Your task to perform on an android device: Search for macbook pro 13 inch on amazon, select the first entry, add it to the cart, then select checkout. Image 0: 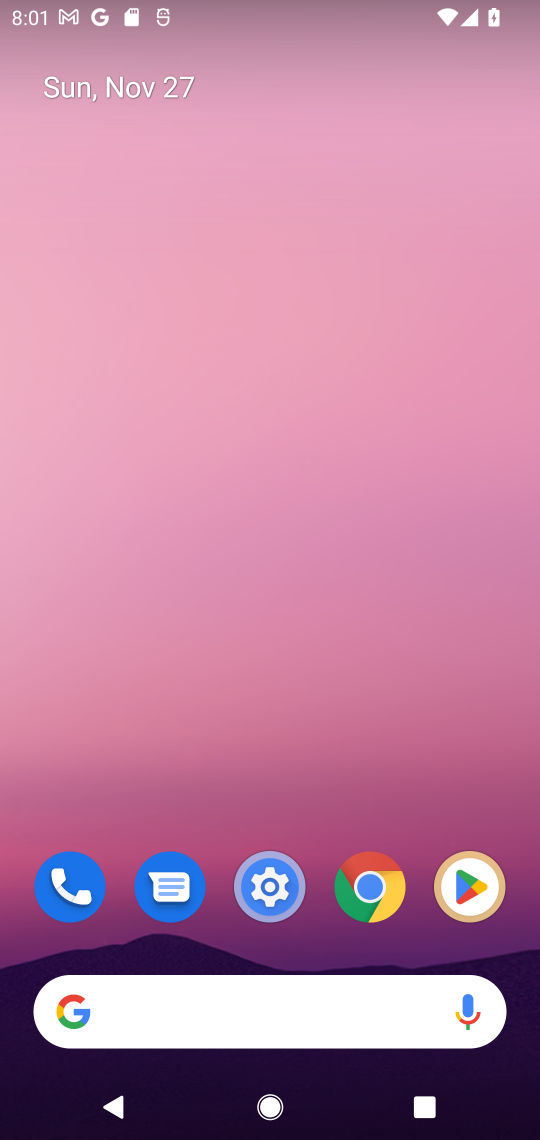
Step 0: click (196, 1008)
Your task to perform on an android device: Search for macbook pro 13 inch on amazon, select the first entry, add it to the cart, then select checkout. Image 1: 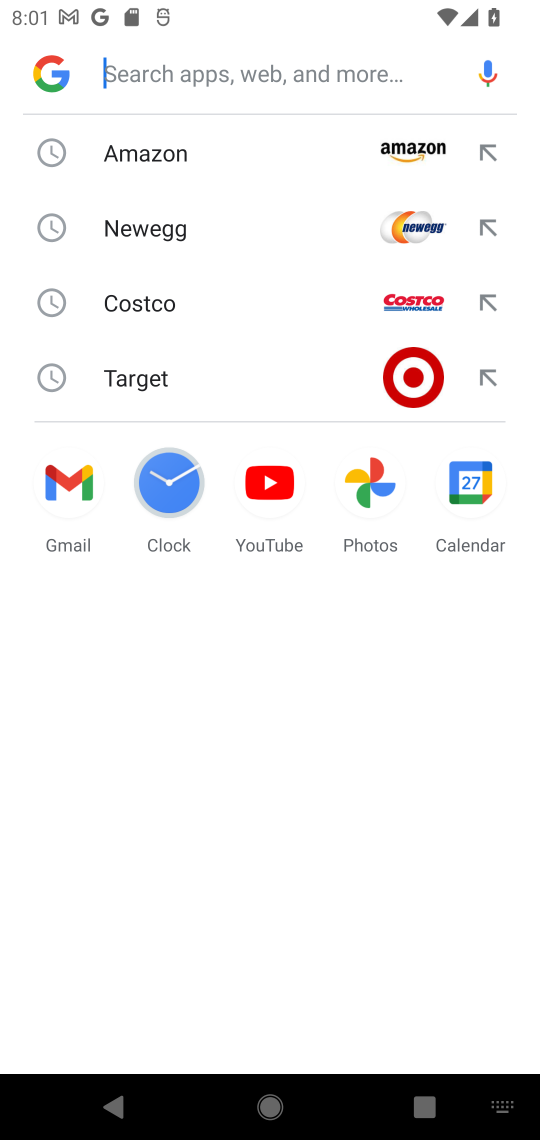
Step 1: type "macbook pro 13"
Your task to perform on an android device: Search for macbook pro 13 inch on amazon, select the first entry, add it to the cart, then select checkout. Image 2: 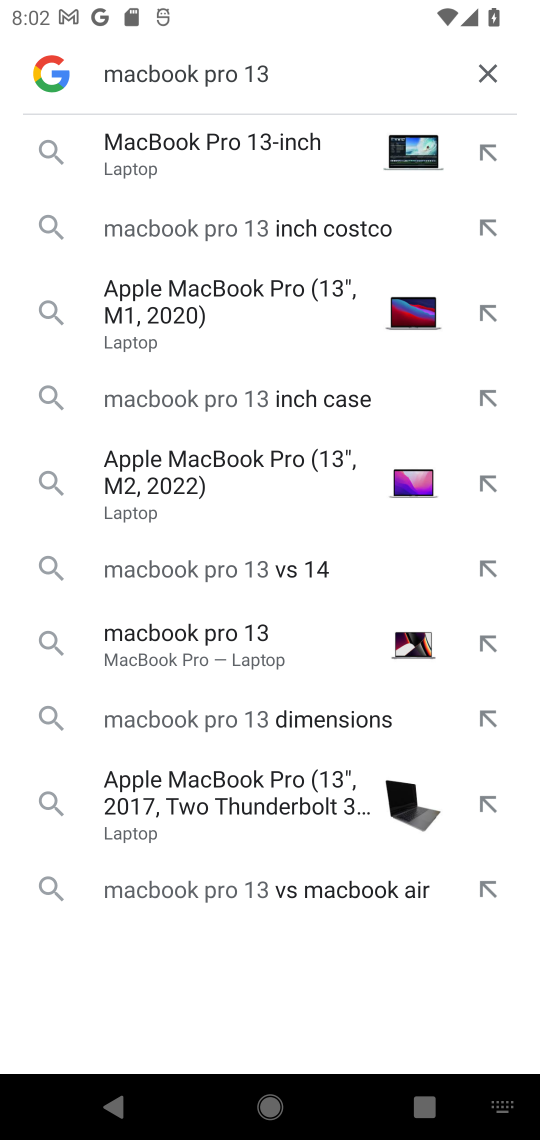
Step 2: click (226, 162)
Your task to perform on an android device: Search for macbook pro 13 inch on amazon, select the first entry, add it to the cart, then select checkout. Image 3: 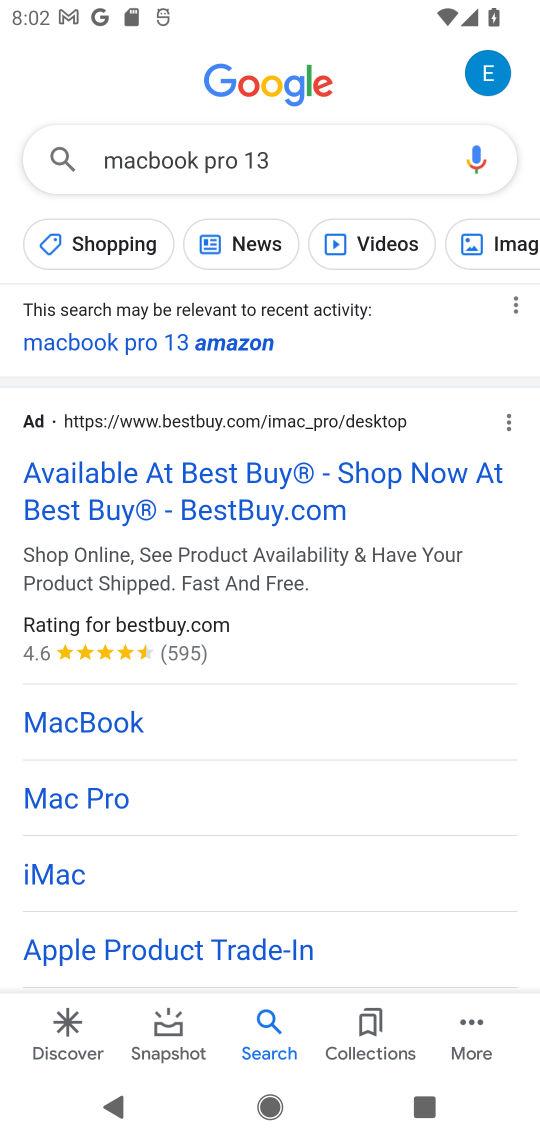
Step 3: click (104, 467)
Your task to perform on an android device: Search for macbook pro 13 inch on amazon, select the first entry, add it to the cart, then select checkout. Image 4: 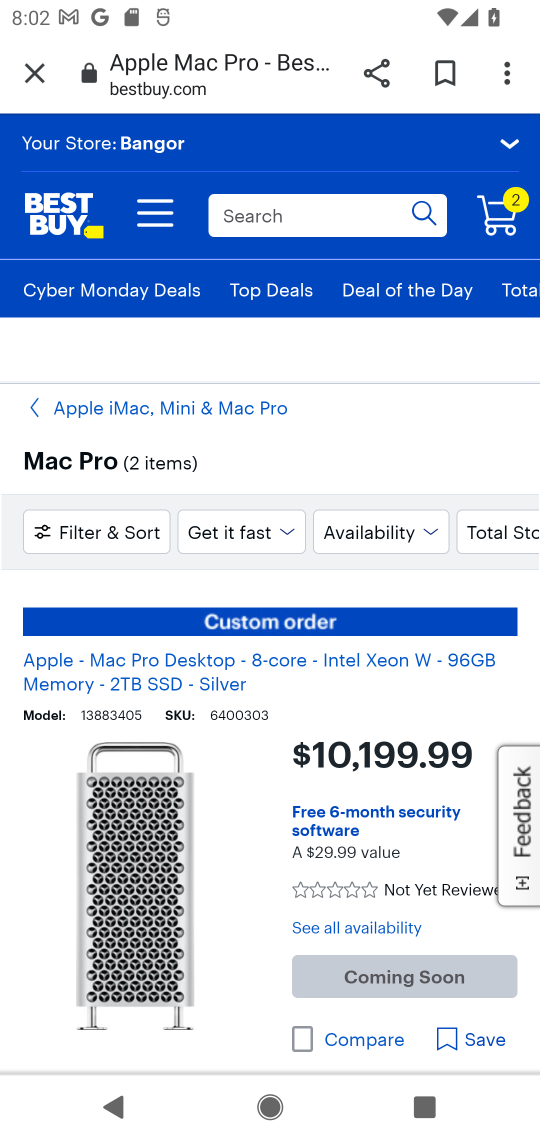
Step 4: click (312, 229)
Your task to perform on an android device: Search for macbook pro 13 inch on amazon, select the first entry, add it to the cart, then select checkout. Image 5: 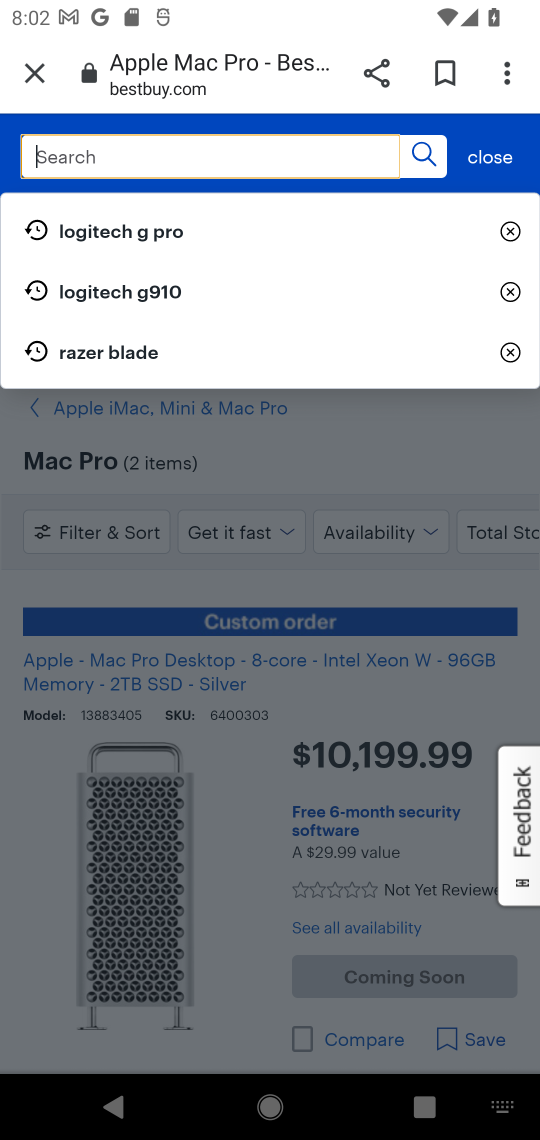
Step 5: type "macbook pro 13"
Your task to perform on an android device: Search for macbook pro 13 inch on amazon, select the first entry, add it to the cart, then select checkout. Image 6: 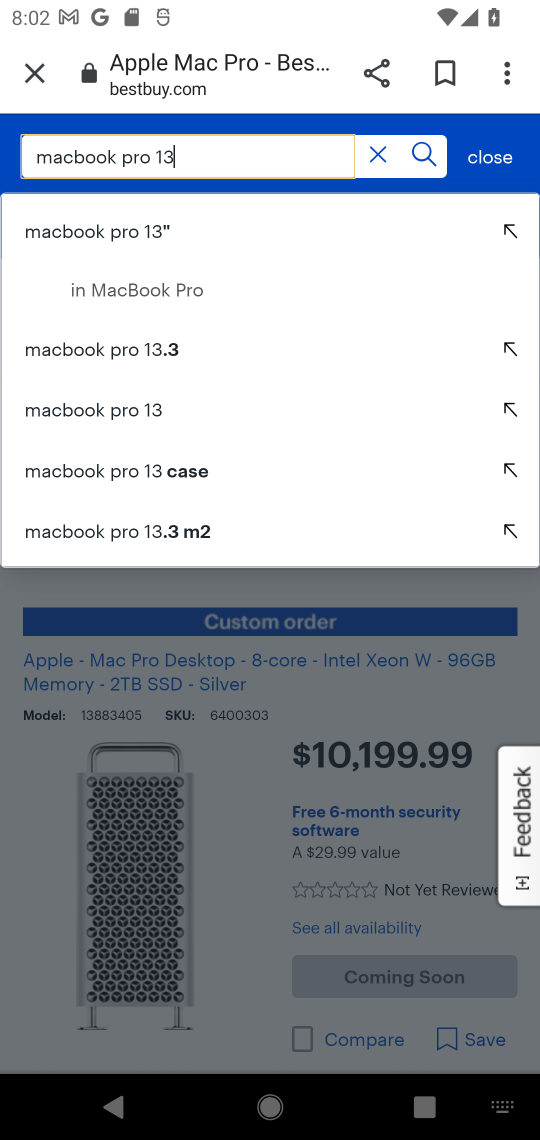
Step 6: click (106, 244)
Your task to perform on an android device: Search for macbook pro 13 inch on amazon, select the first entry, add it to the cart, then select checkout. Image 7: 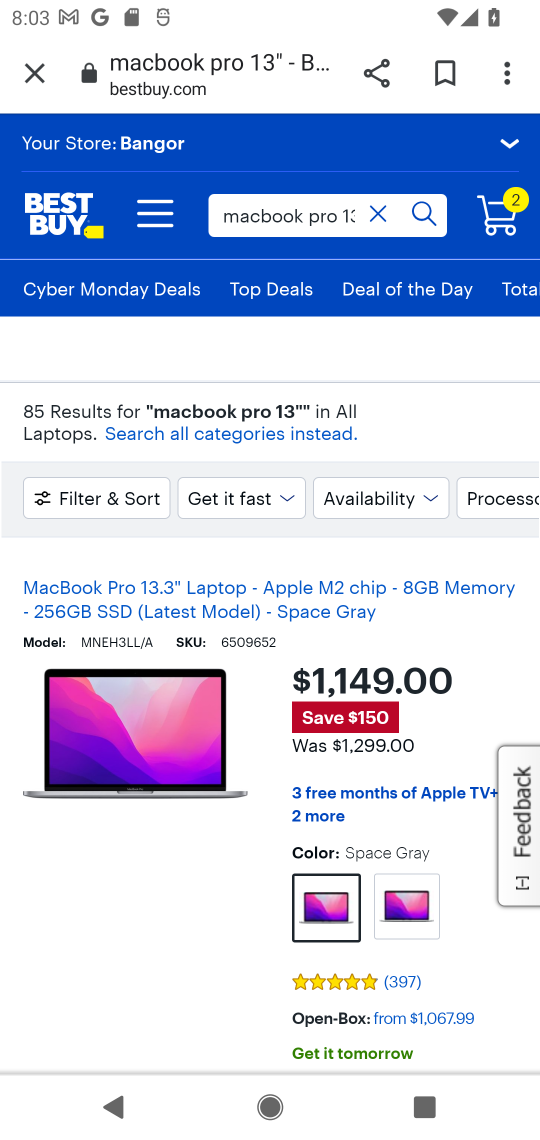
Step 7: click (157, 709)
Your task to perform on an android device: Search for macbook pro 13 inch on amazon, select the first entry, add it to the cart, then select checkout. Image 8: 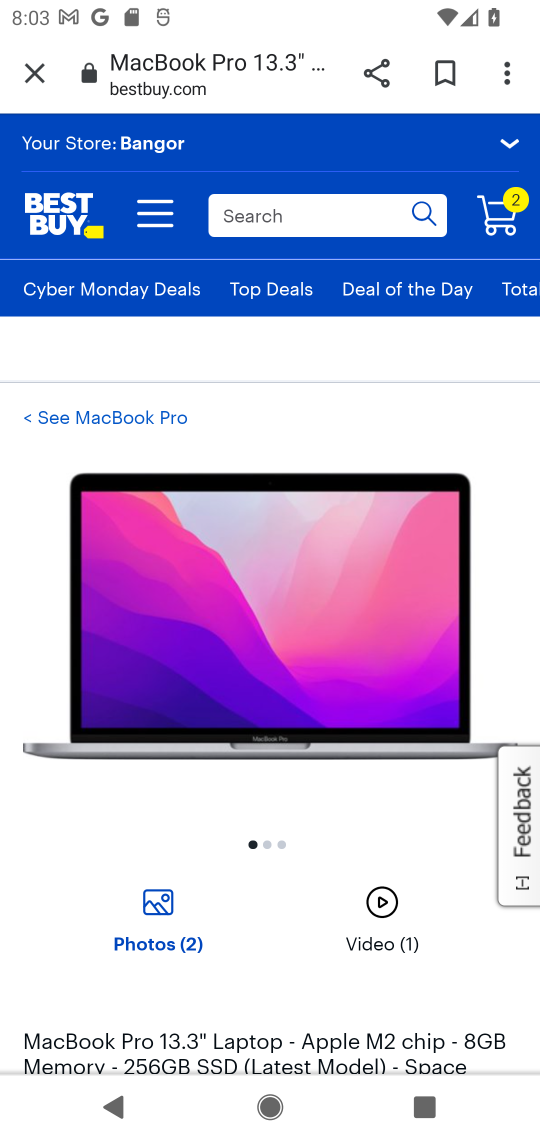
Step 8: task complete